Your task to perform on an android device: turn off location history Image 0: 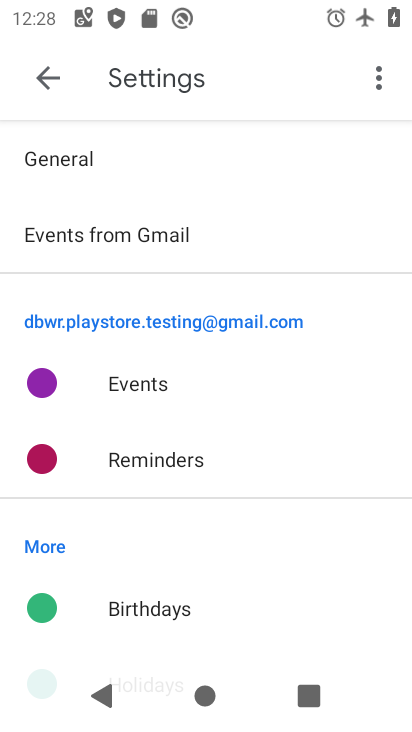
Step 0: press home button
Your task to perform on an android device: turn off location history Image 1: 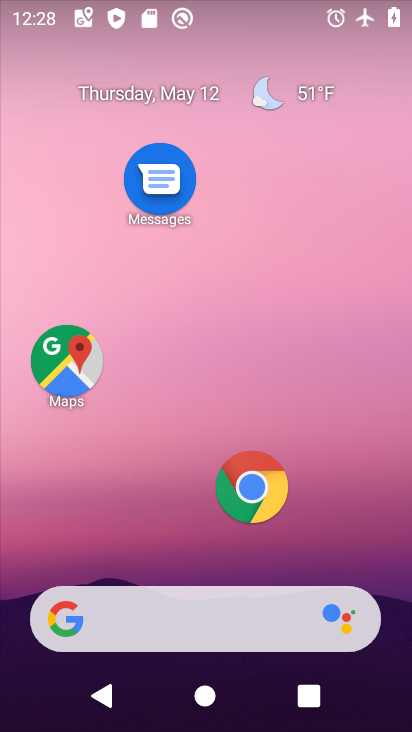
Step 1: drag from (162, 567) to (177, 102)
Your task to perform on an android device: turn off location history Image 2: 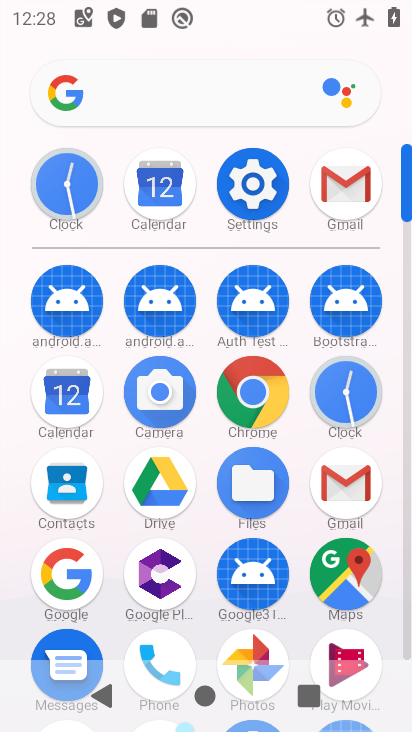
Step 2: click (255, 190)
Your task to perform on an android device: turn off location history Image 3: 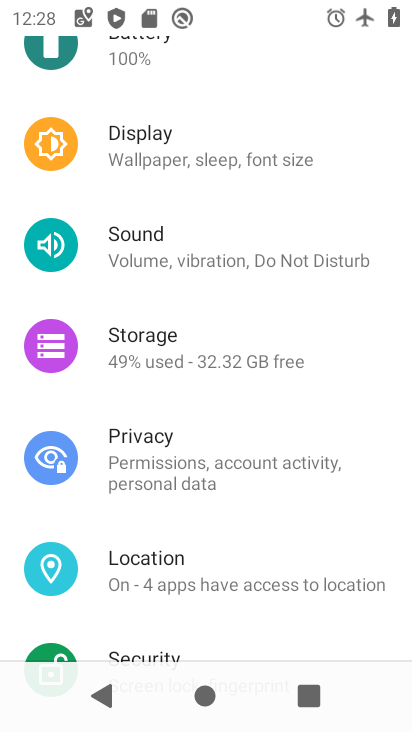
Step 3: drag from (217, 581) to (217, 286)
Your task to perform on an android device: turn off location history Image 4: 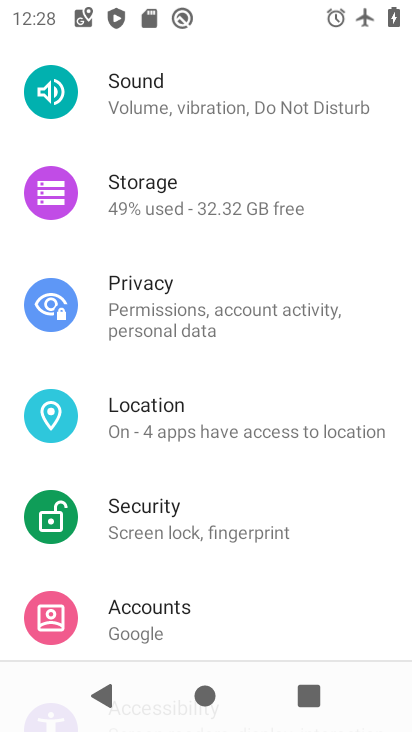
Step 4: click (198, 390)
Your task to perform on an android device: turn off location history Image 5: 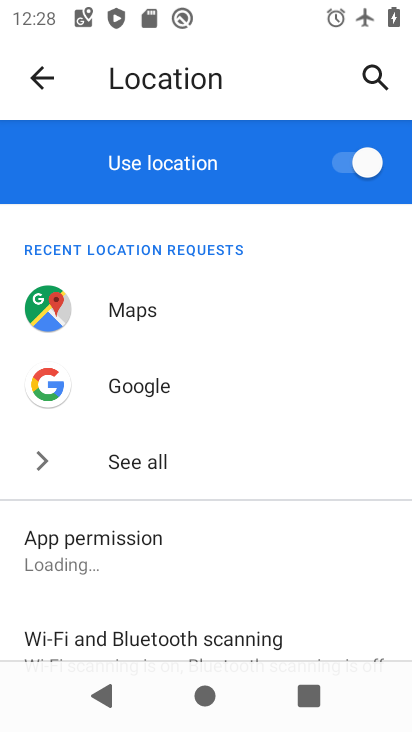
Step 5: drag from (241, 560) to (277, 274)
Your task to perform on an android device: turn off location history Image 6: 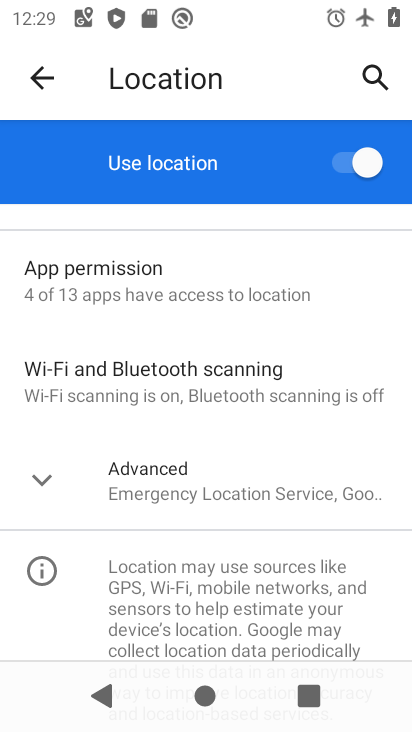
Step 6: click (193, 493)
Your task to perform on an android device: turn off location history Image 7: 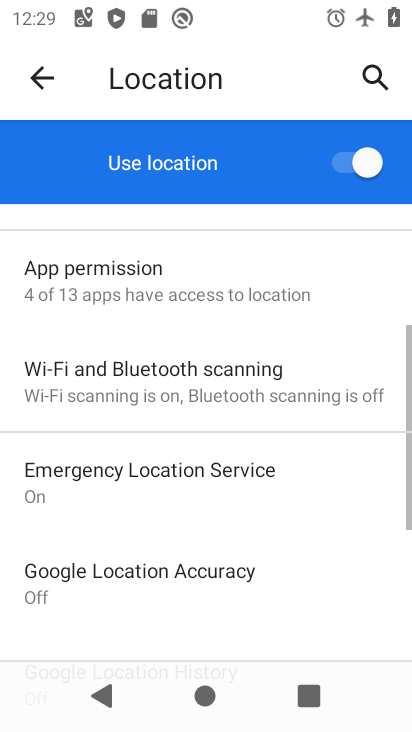
Step 7: drag from (225, 543) to (256, 278)
Your task to perform on an android device: turn off location history Image 8: 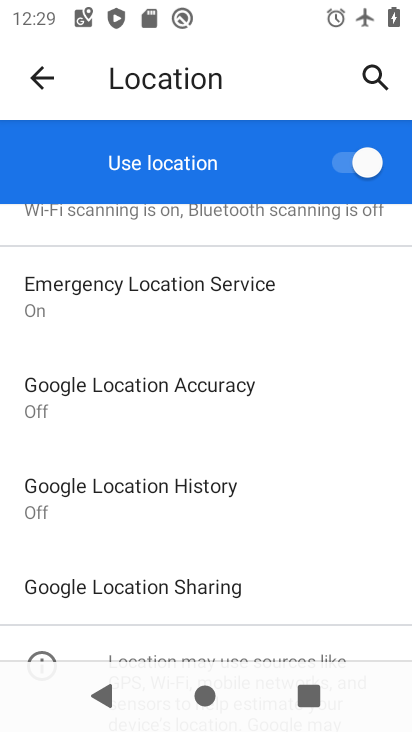
Step 8: click (221, 487)
Your task to perform on an android device: turn off location history Image 9: 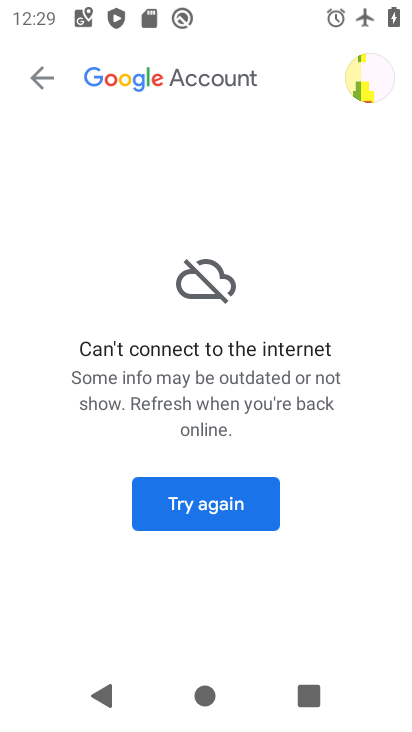
Step 9: click (221, 487)
Your task to perform on an android device: turn off location history Image 10: 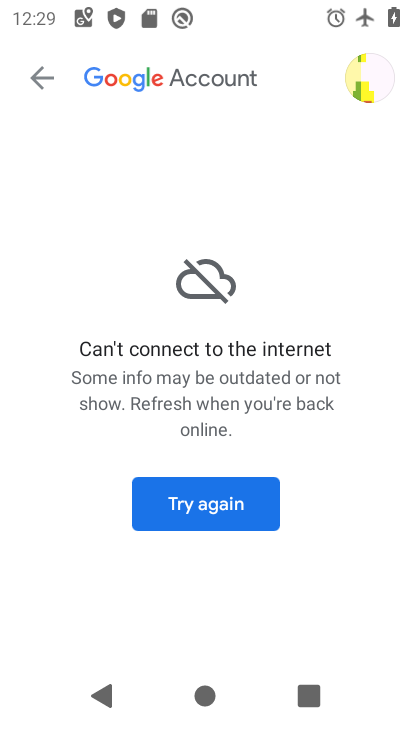
Step 10: task complete